Your task to perform on an android device: Search for pizza restaurants on Maps Image 0: 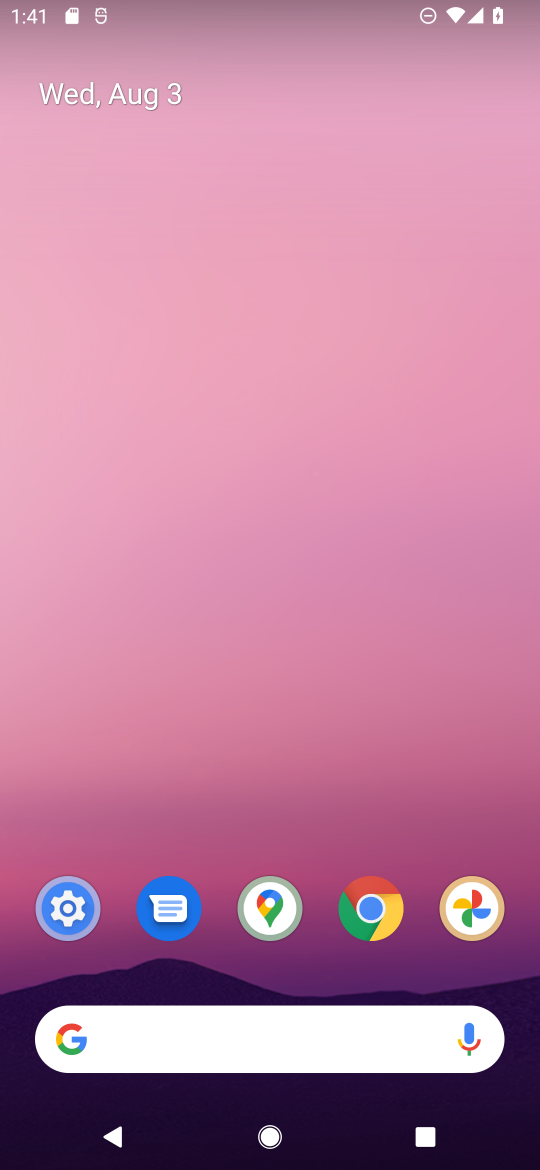
Step 0: press home button
Your task to perform on an android device: Search for pizza restaurants on Maps Image 1: 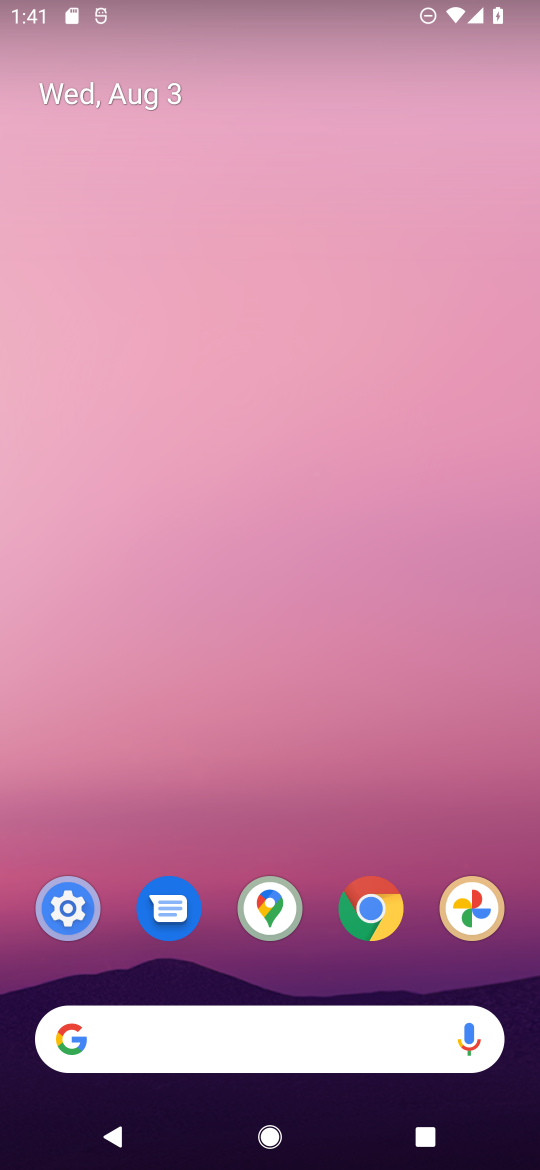
Step 1: click (265, 913)
Your task to perform on an android device: Search for pizza restaurants on Maps Image 2: 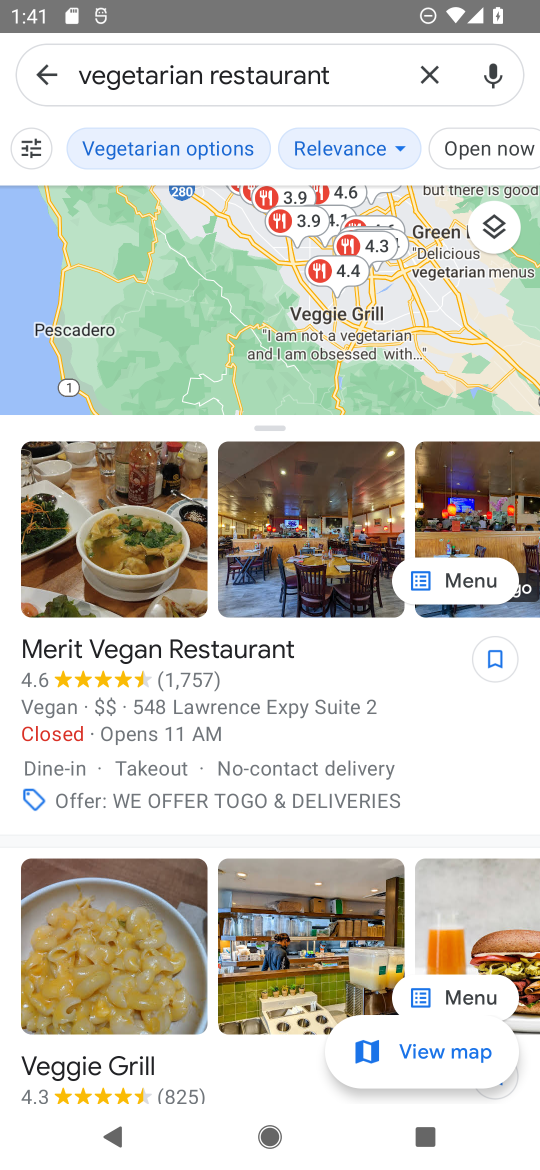
Step 2: click (426, 69)
Your task to perform on an android device: Search for pizza restaurants on Maps Image 3: 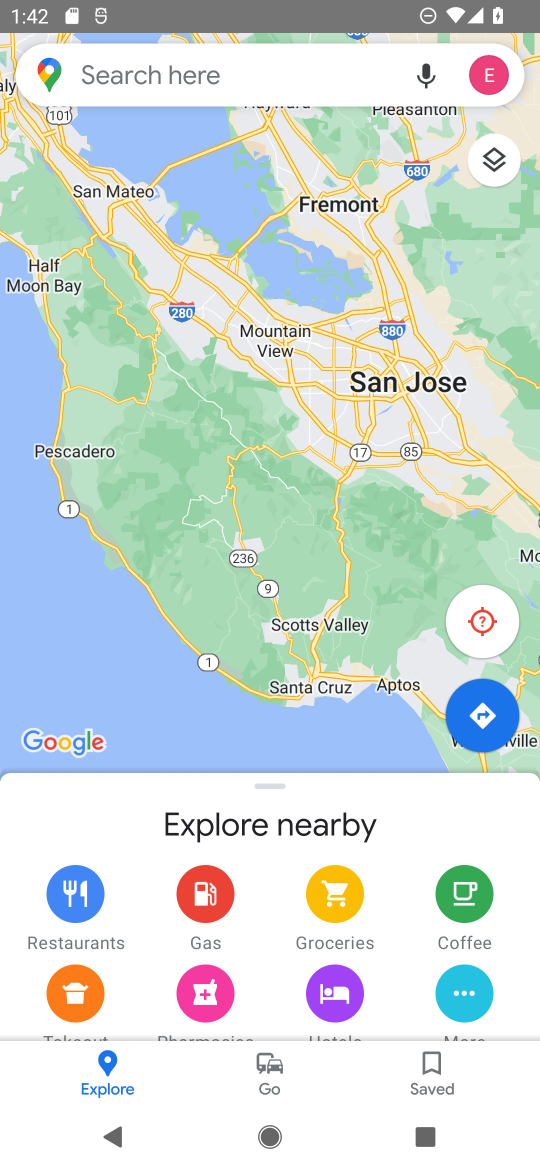
Step 3: click (208, 74)
Your task to perform on an android device: Search for pizza restaurants on Maps Image 4: 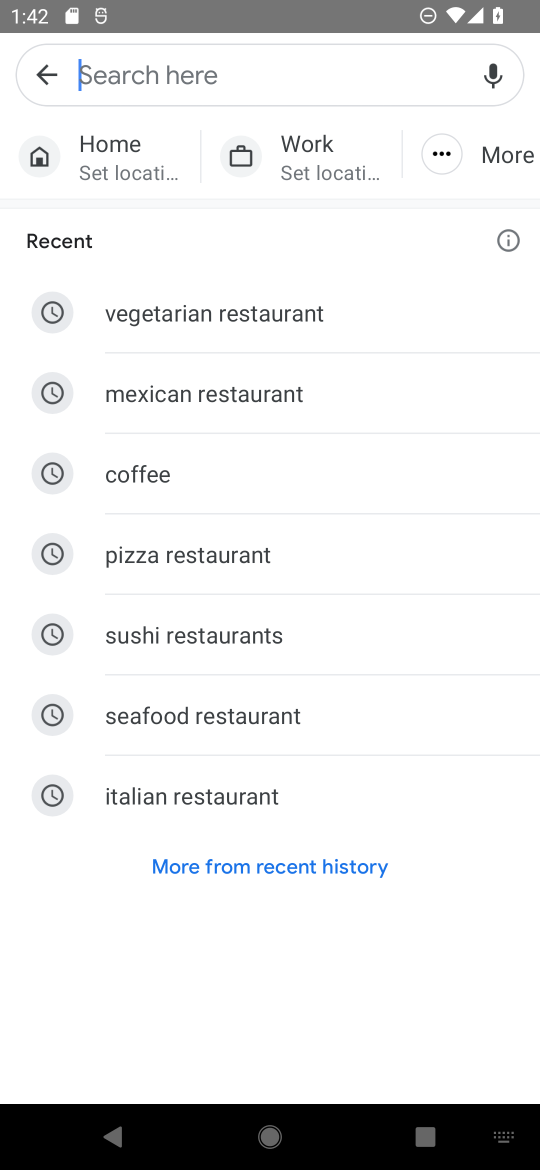
Step 4: type "pizza restaurants"
Your task to perform on an android device: Search for pizza restaurants on Maps Image 5: 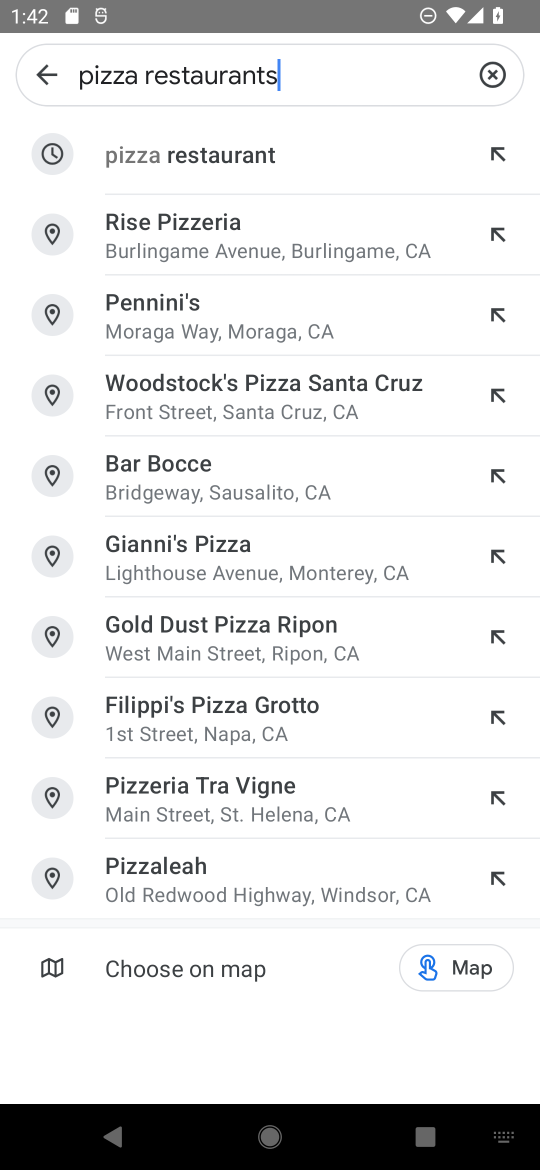
Step 5: click (231, 150)
Your task to perform on an android device: Search for pizza restaurants on Maps Image 6: 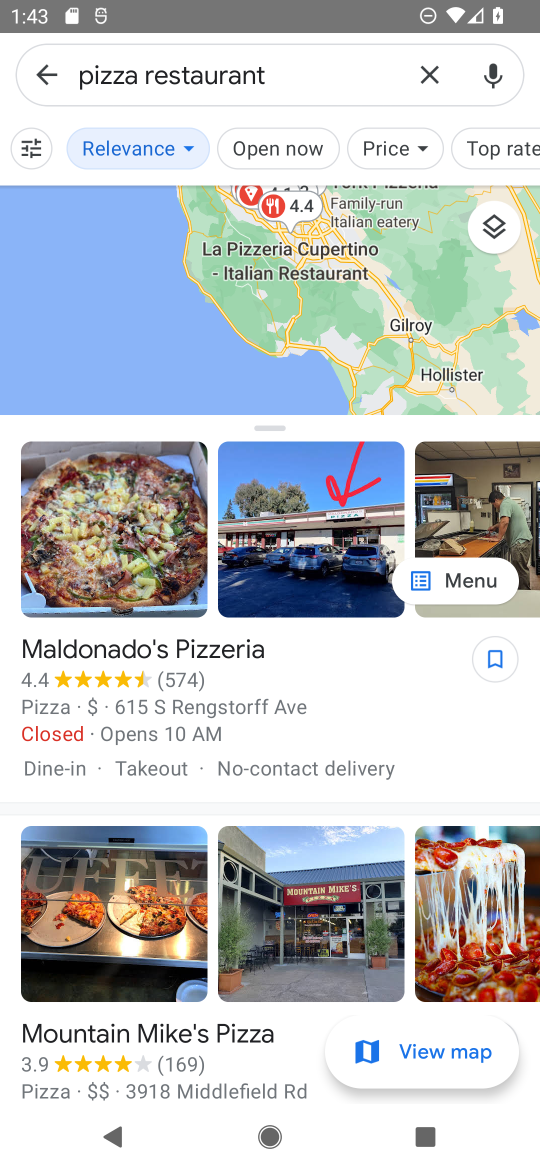
Step 6: task complete